Your task to perform on an android device: open chrome privacy settings Image 0: 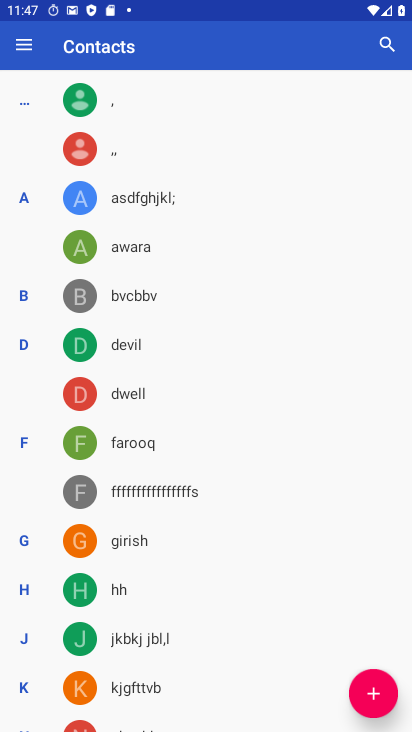
Step 0: press home button
Your task to perform on an android device: open chrome privacy settings Image 1: 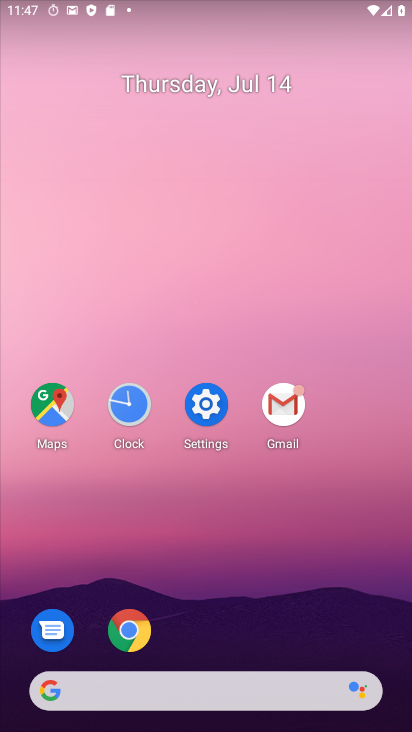
Step 1: click (143, 627)
Your task to perform on an android device: open chrome privacy settings Image 2: 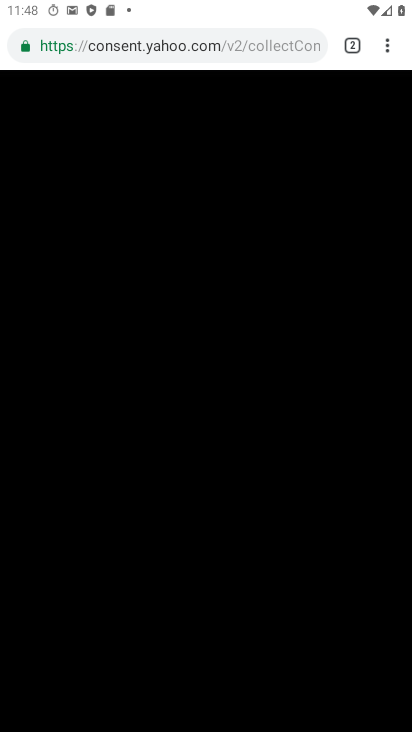
Step 2: press back button
Your task to perform on an android device: open chrome privacy settings Image 3: 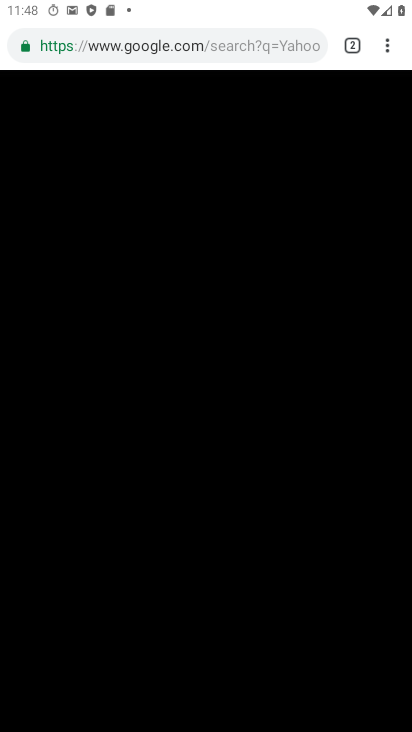
Step 3: click (387, 42)
Your task to perform on an android device: open chrome privacy settings Image 4: 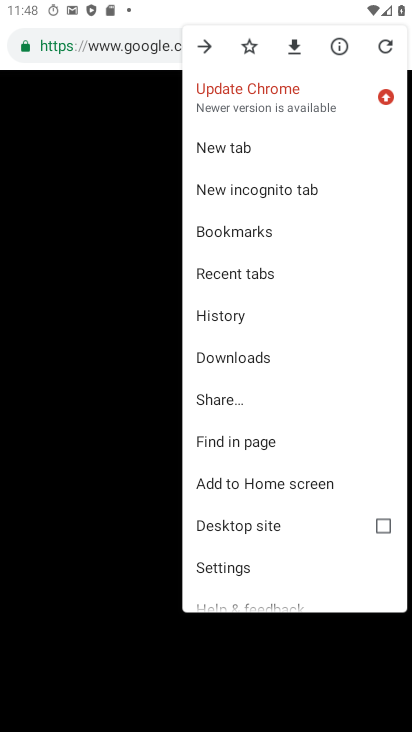
Step 4: click (225, 561)
Your task to perform on an android device: open chrome privacy settings Image 5: 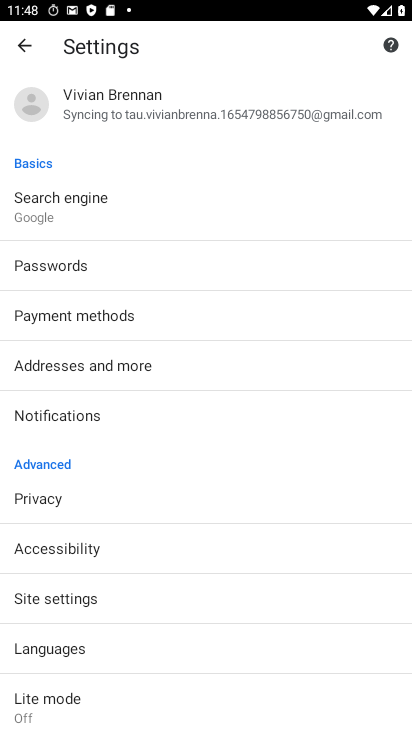
Step 5: click (40, 491)
Your task to perform on an android device: open chrome privacy settings Image 6: 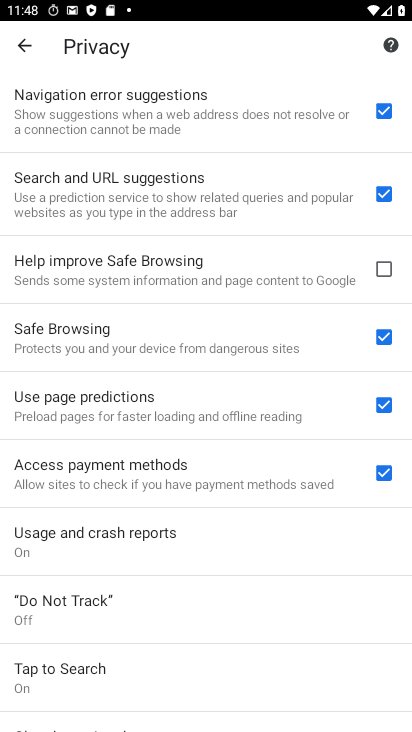
Step 6: task complete